Your task to perform on an android device: Show the shopping cart on costco.com. Add logitech g pro to the cart on costco.com, then select checkout. Image 0: 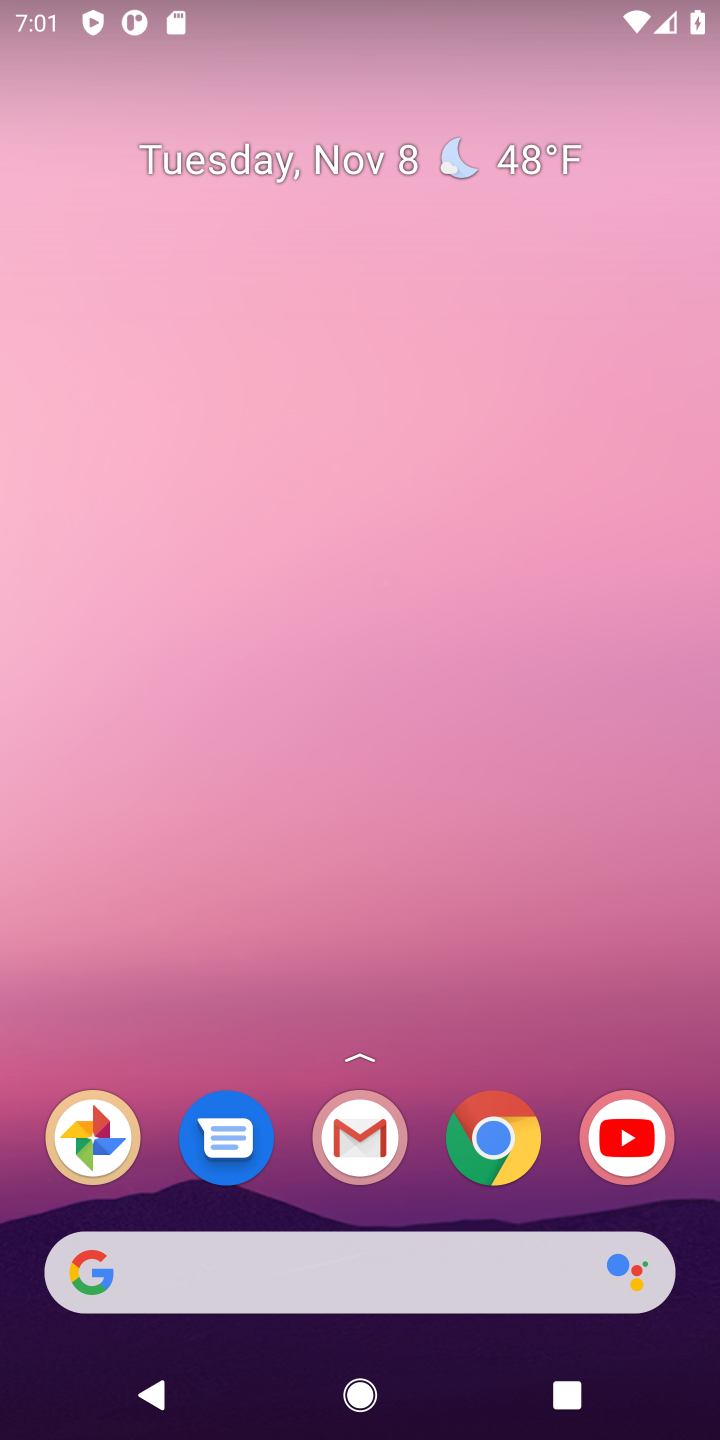
Step 0: press home button
Your task to perform on an android device: Show the shopping cart on costco.com. Add logitech g pro to the cart on costco.com, then select checkout. Image 1: 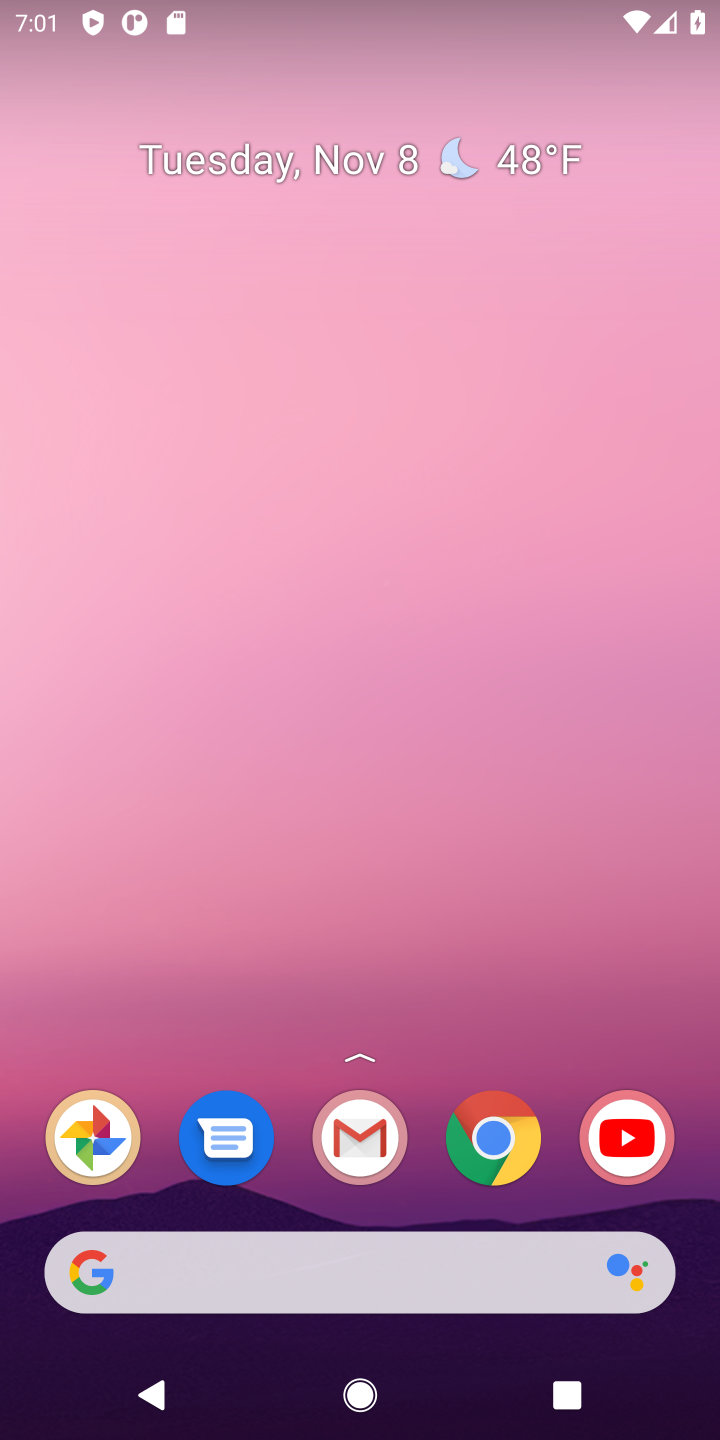
Step 1: click (476, 1155)
Your task to perform on an android device: Show the shopping cart on costco.com. Add logitech g pro to the cart on costco.com, then select checkout. Image 2: 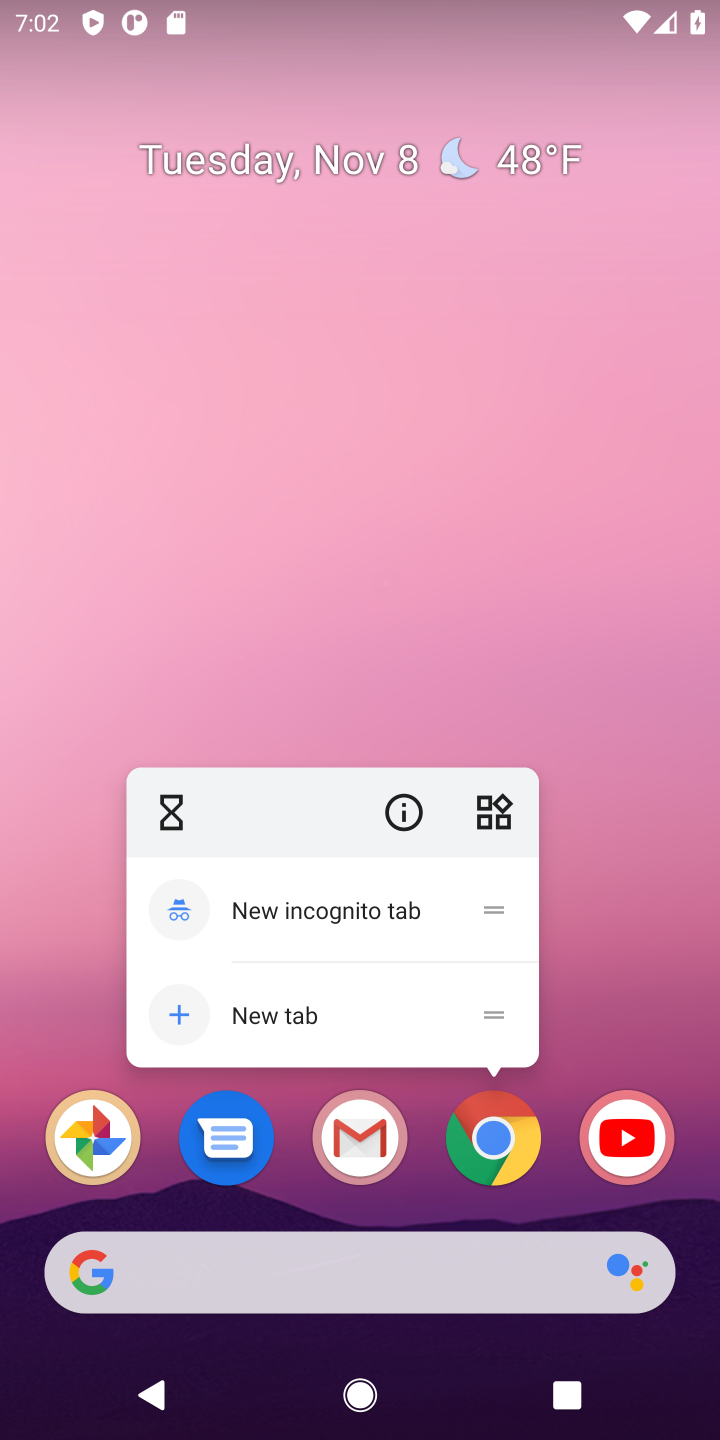
Step 2: click (476, 1151)
Your task to perform on an android device: Show the shopping cart on costco.com. Add logitech g pro to the cart on costco.com, then select checkout. Image 3: 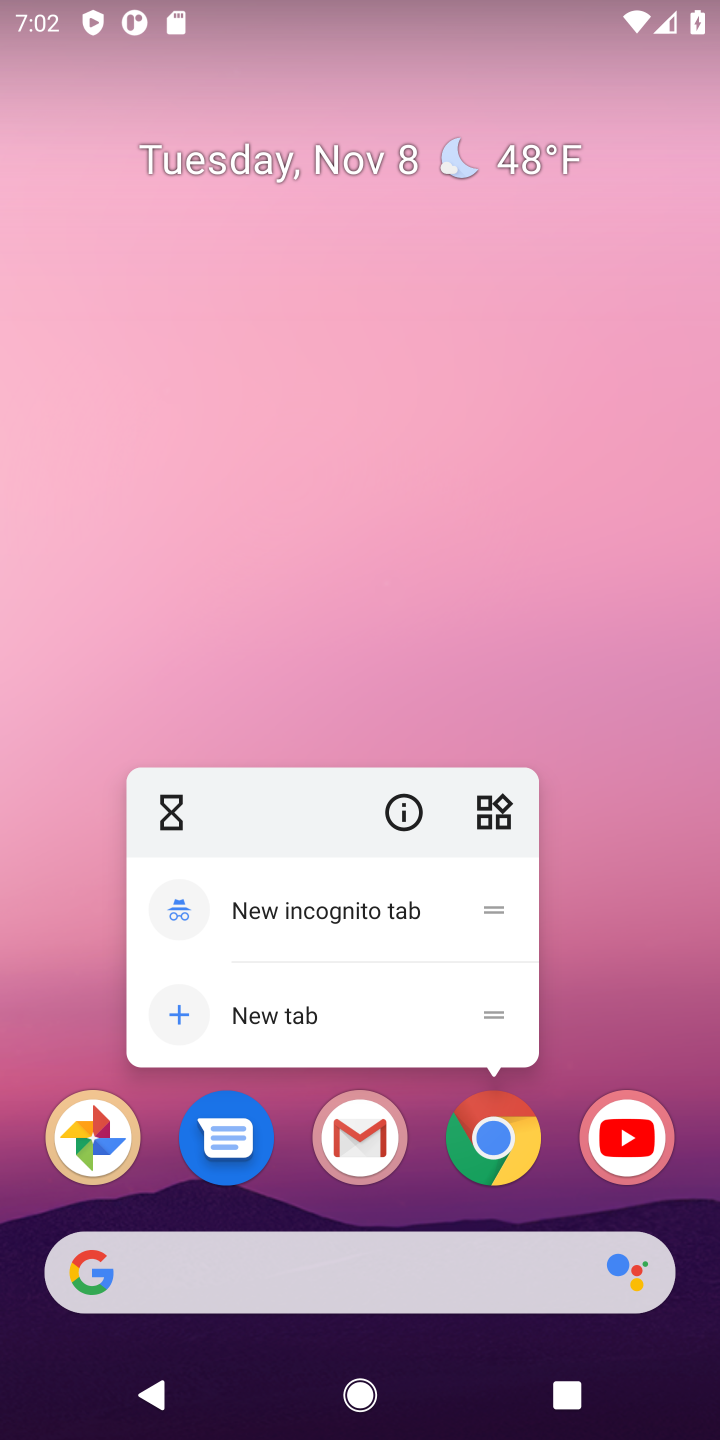
Step 3: click (510, 1145)
Your task to perform on an android device: Show the shopping cart on costco.com. Add logitech g pro to the cart on costco.com, then select checkout. Image 4: 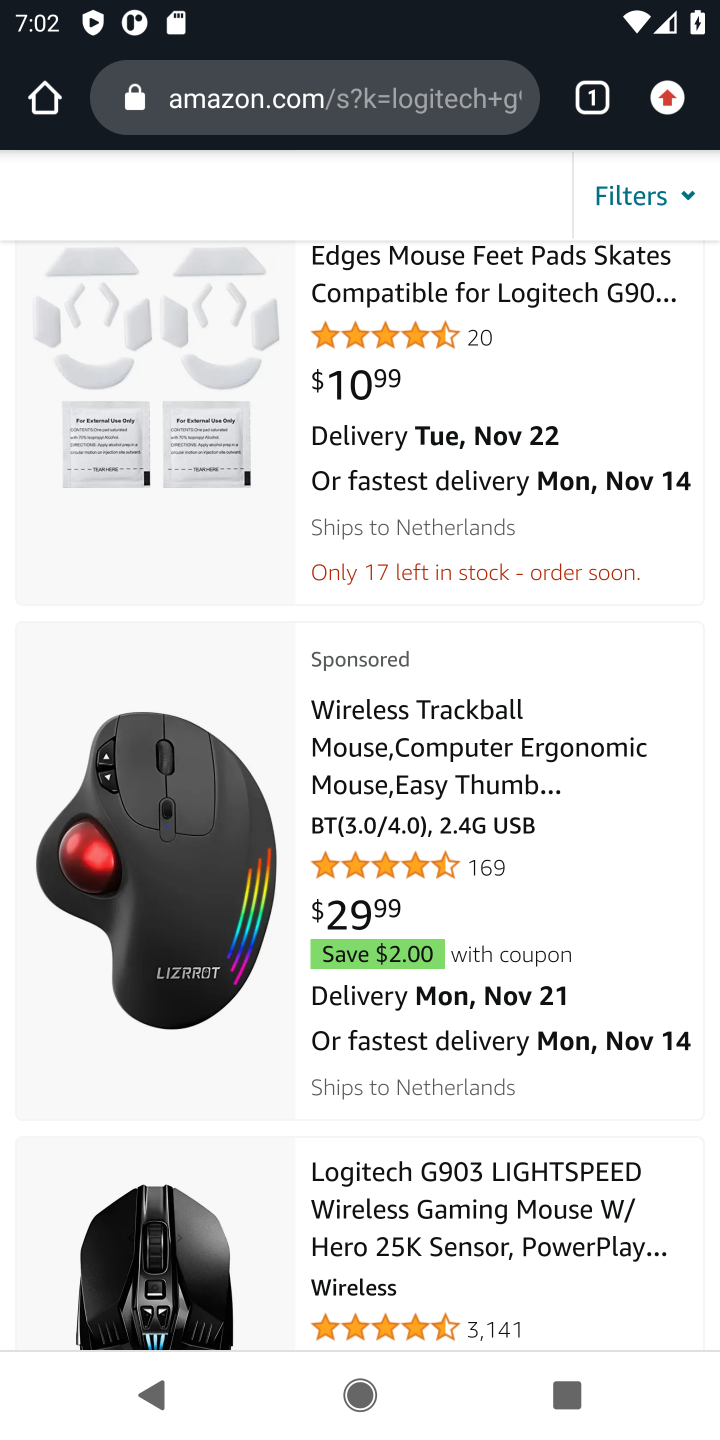
Step 4: click (311, 102)
Your task to perform on an android device: Show the shopping cart on costco.com. Add logitech g pro to the cart on costco.com, then select checkout. Image 5: 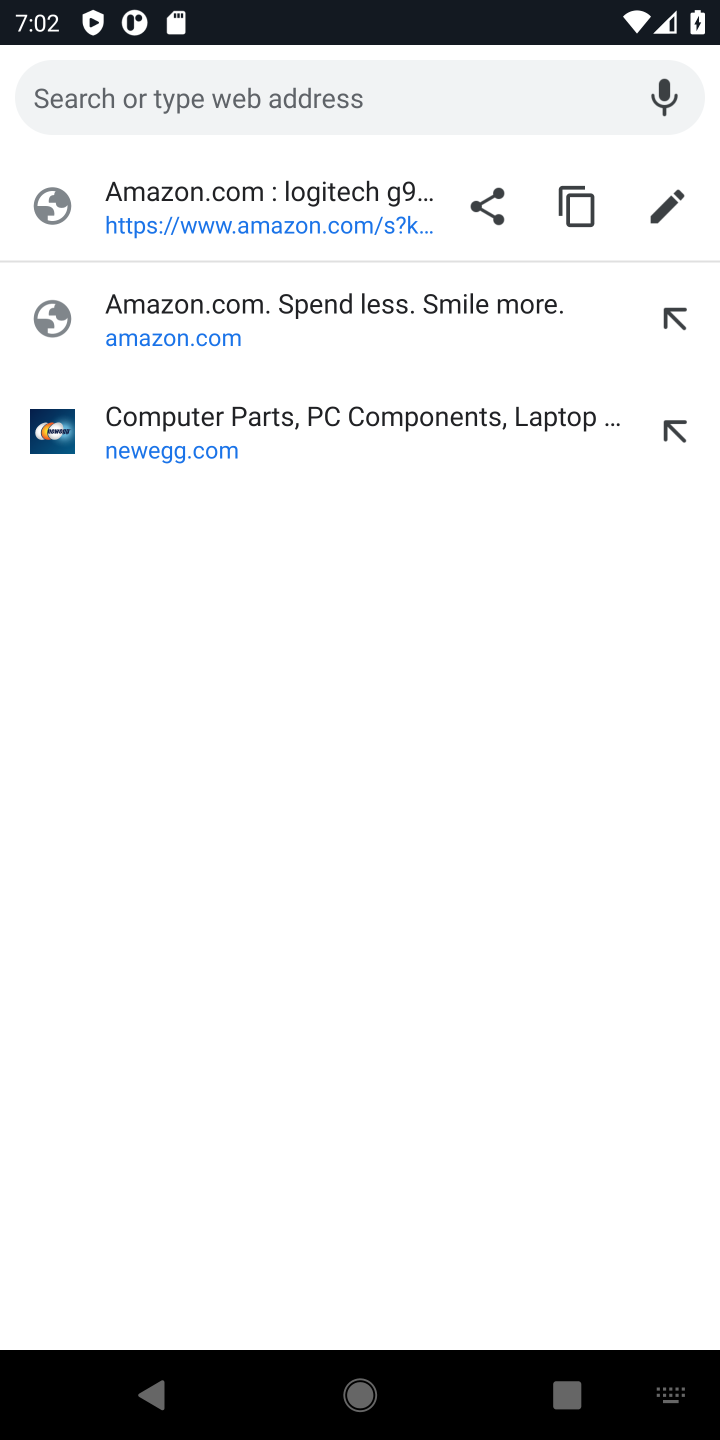
Step 5: type "costco.com"
Your task to perform on an android device: Show the shopping cart on costco.com. Add logitech g pro to the cart on costco.com, then select checkout. Image 6: 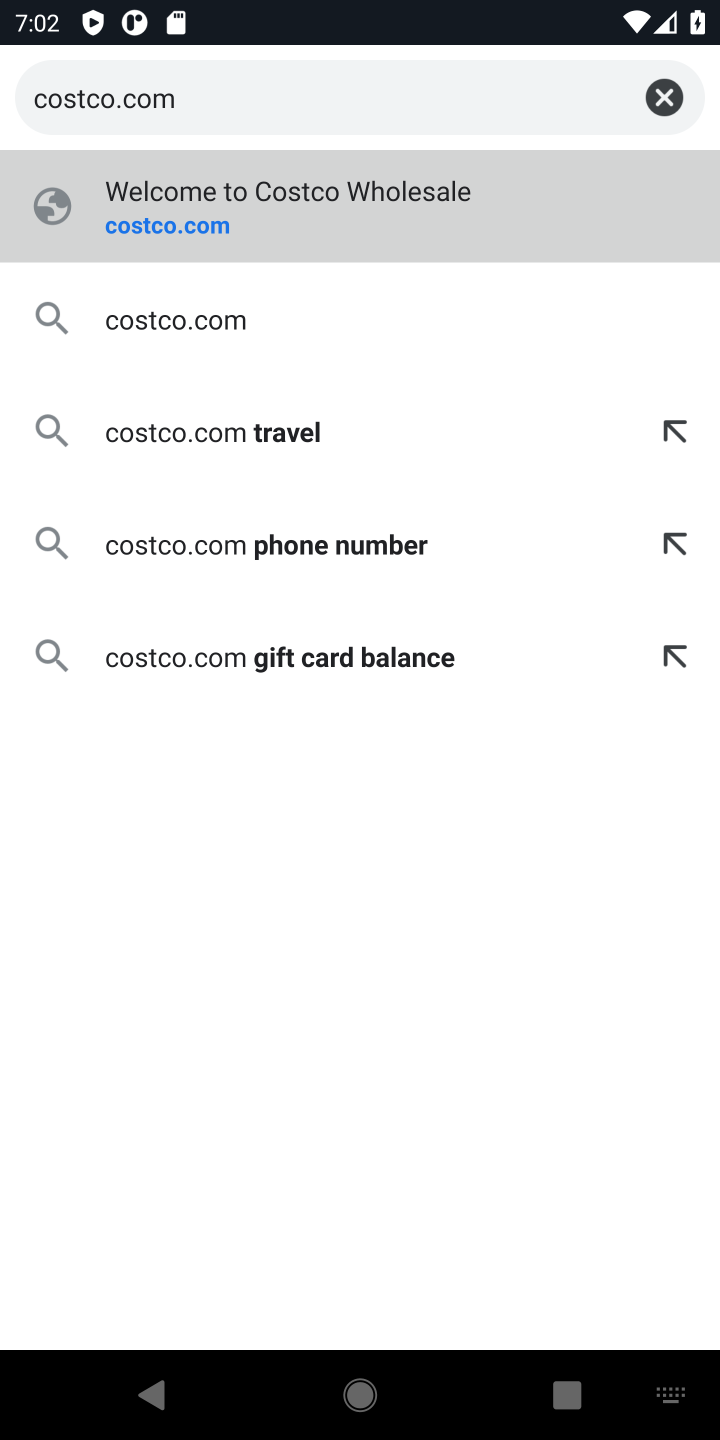
Step 6: press enter
Your task to perform on an android device: Show the shopping cart on costco.com. Add logitech g pro to the cart on costco.com, then select checkout. Image 7: 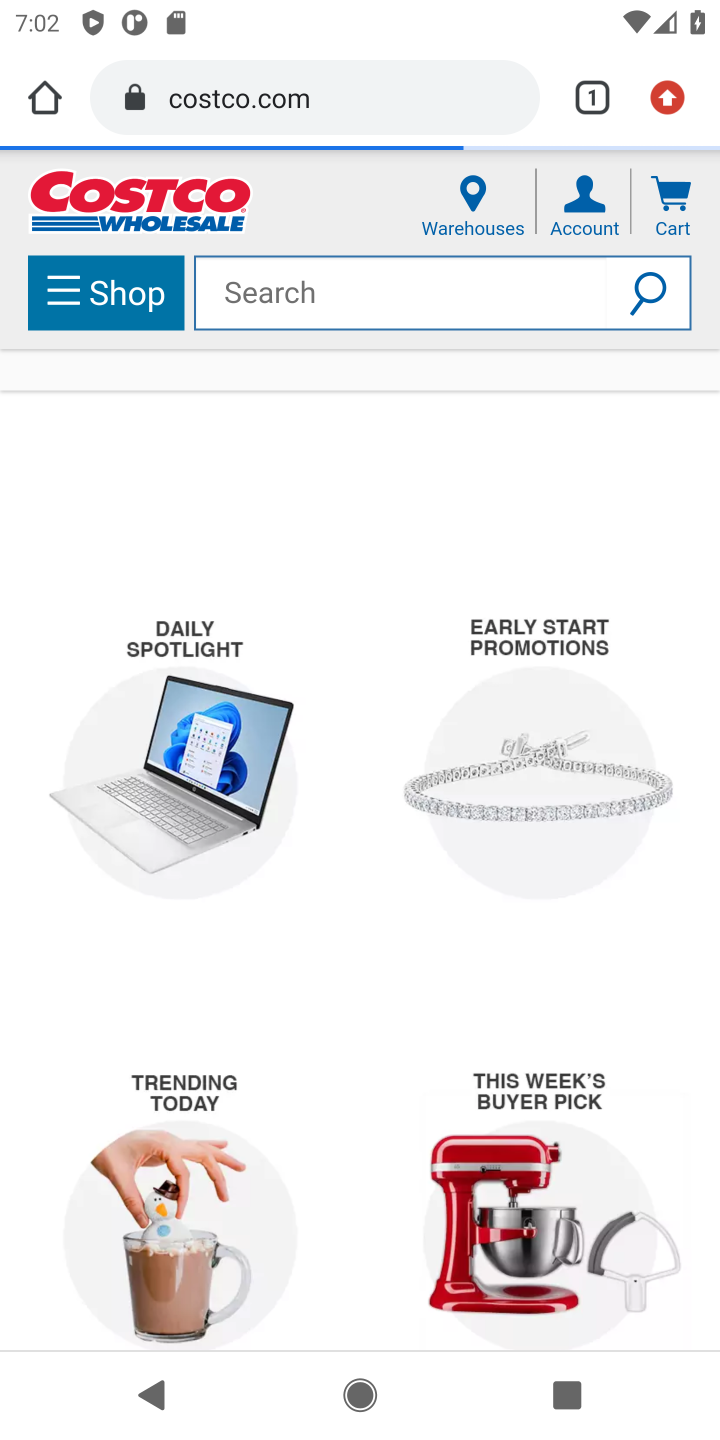
Step 7: click (375, 277)
Your task to perform on an android device: Show the shopping cart on costco.com. Add logitech g pro to the cart on costco.com, then select checkout. Image 8: 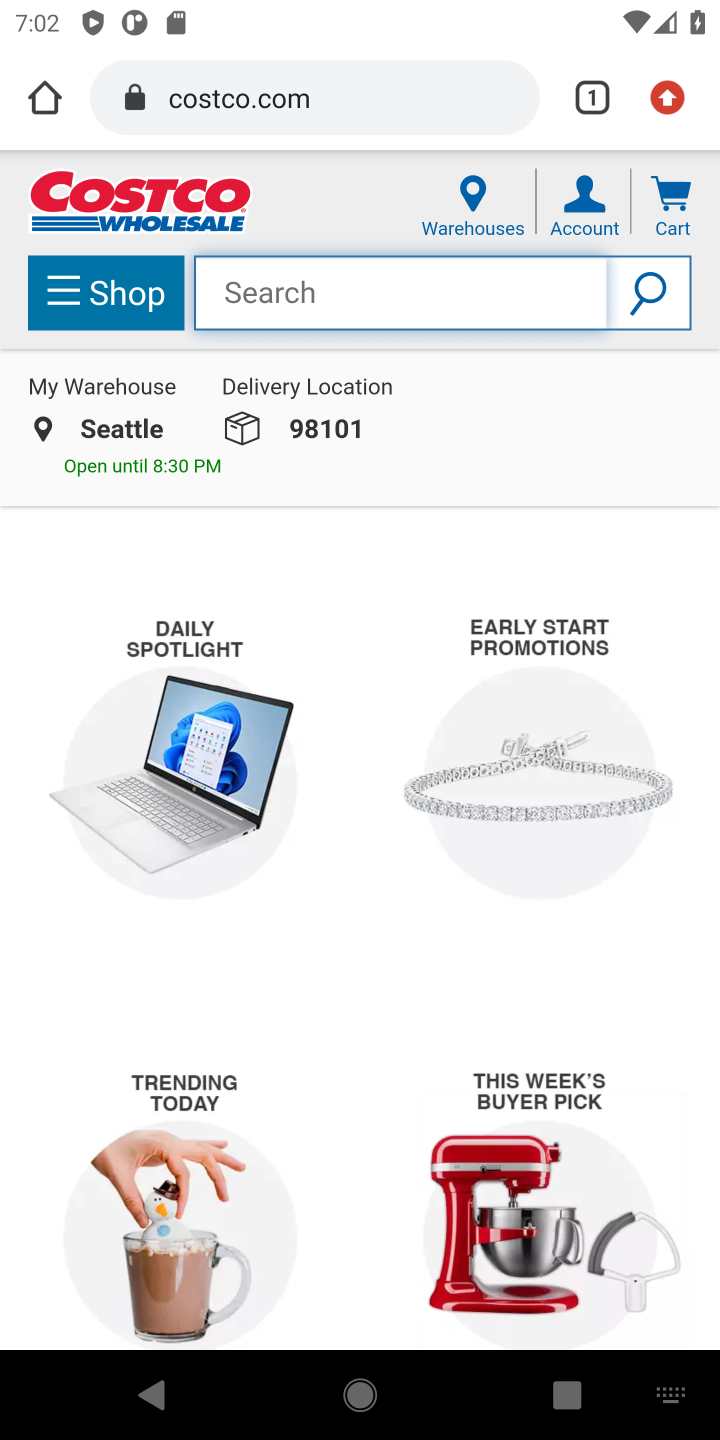
Step 8: type "logitech g pro"
Your task to perform on an android device: Show the shopping cart on costco.com. Add logitech g pro to the cart on costco.com, then select checkout. Image 9: 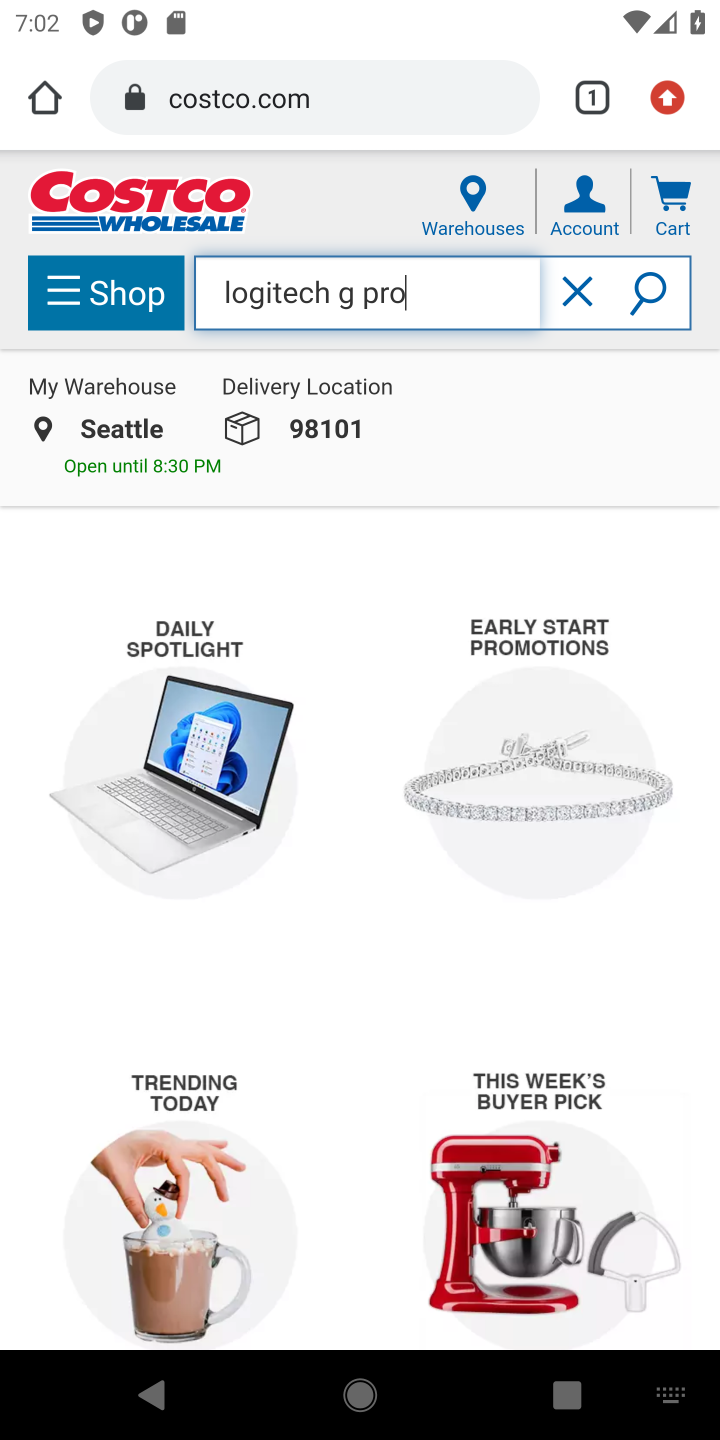
Step 9: press enter
Your task to perform on an android device: Show the shopping cart on costco.com. Add logitech g pro to the cart on costco.com, then select checkout. Image 10: 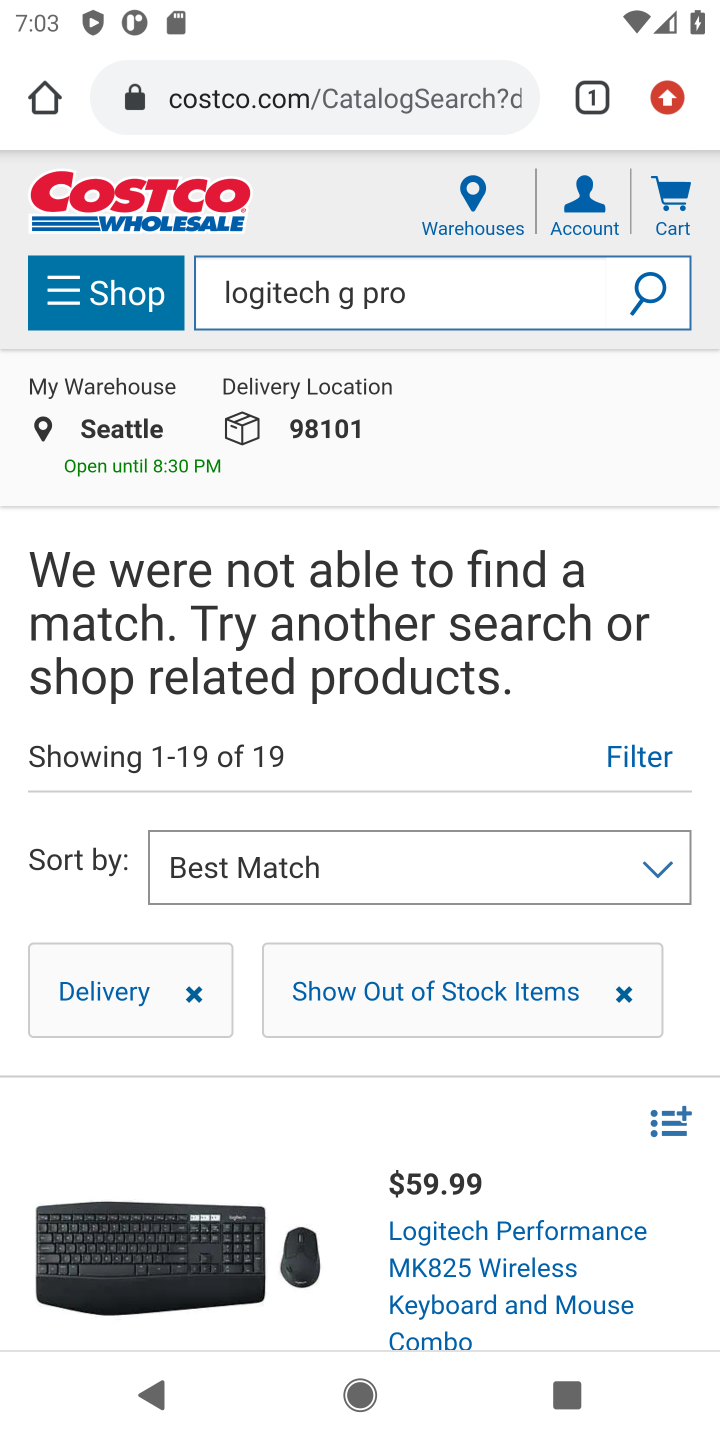
Step 10: task complete